Your task to perform on an android device: Search for the best rated coffee table on Target. Image 0: 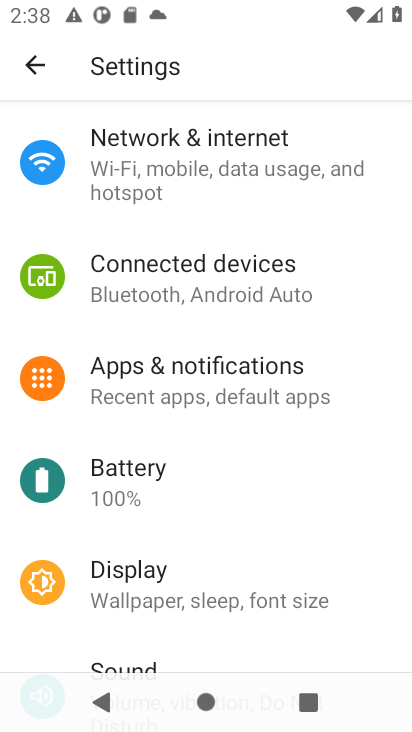
Step 0: press home button
Your task to perform on an android device: Search for the best rated coffee table on Target. Image 1: 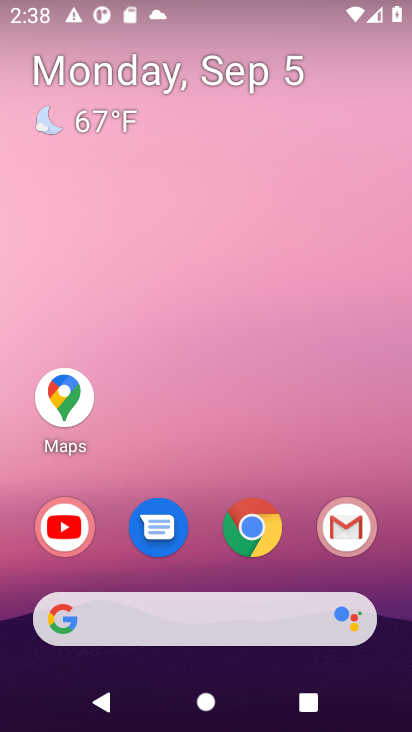
Step 1: click (239, 518)
Your task to perform on an android device: Search for the best rated coffee table on Target. Image 2: 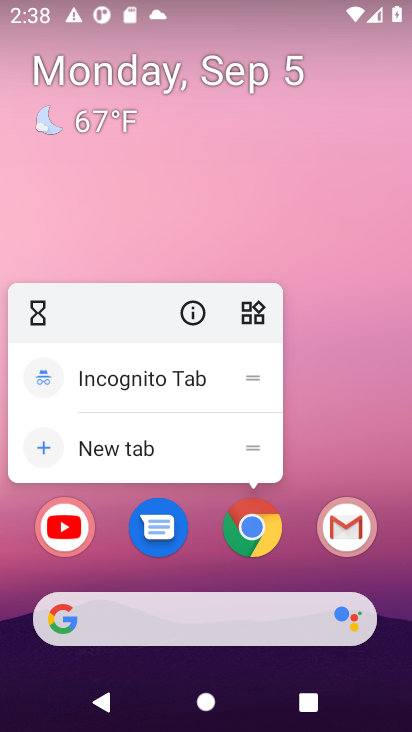
Step 2: click (239, 518)
Your task to perform on an android device: Search for the best rated coffee table on Target. Image 3: 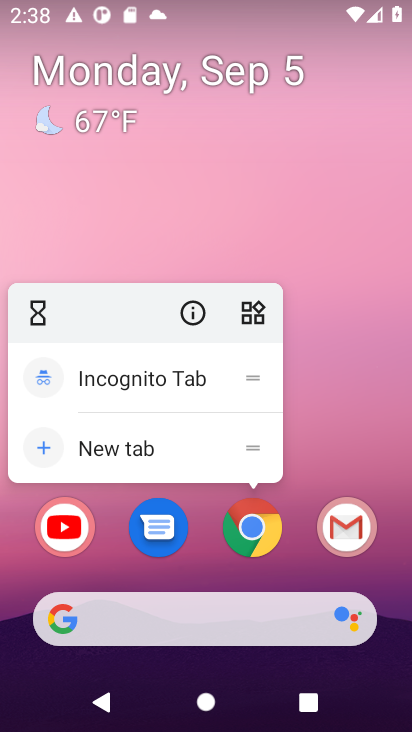
Step 3: click (250, 524)
Your task to perform on an android device: Search for the best rated coffee table on Target. Image 4: 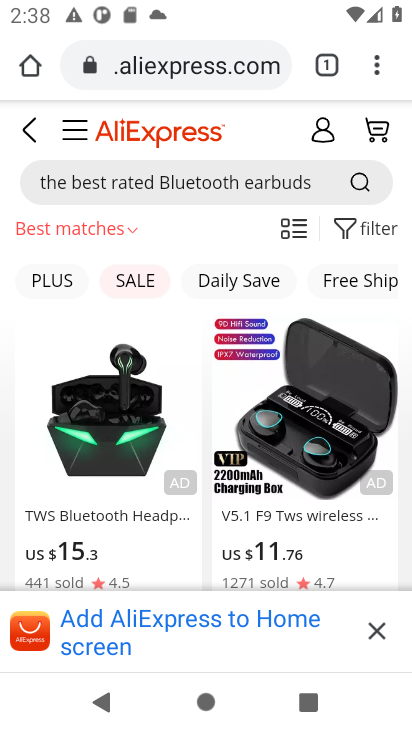
Step 4: click (208, 60)
Your task to perform on an android device: Search for the best rated coffee table on Target. Image 5: 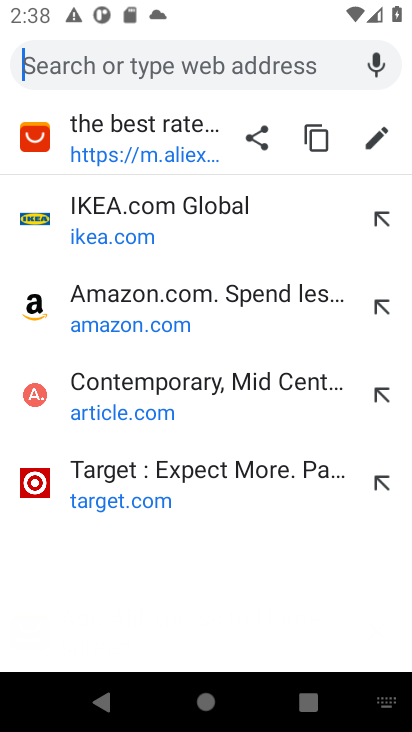
Step 5: type "target"
Your task to perform on an android device: Search for the best rated coffee table on Target. Image 6: 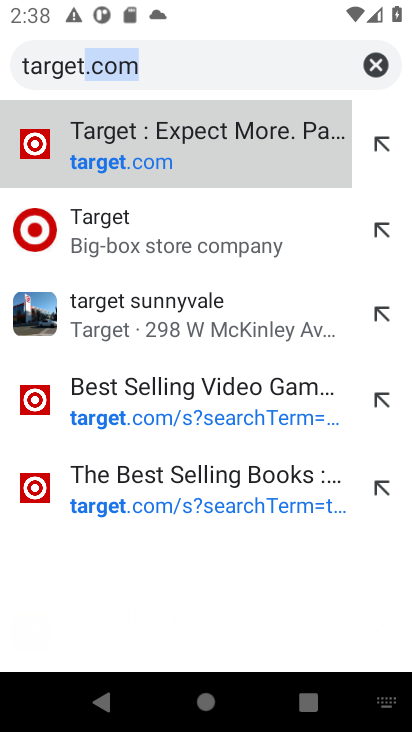
Step 6: click (274, 226)
Your task to perform on an android device: Search for the best rated coffee table on Target. Image 7: 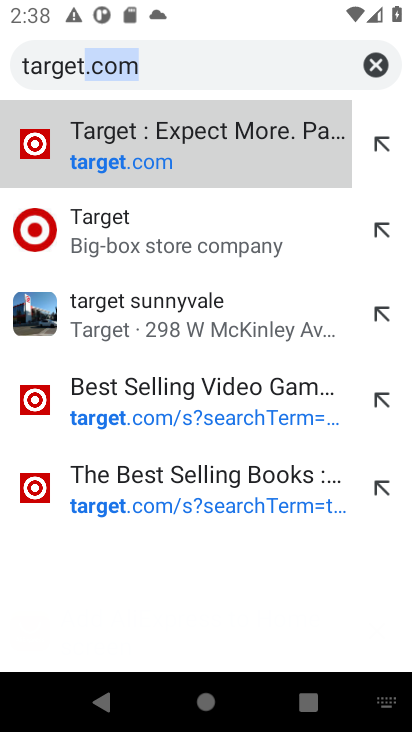
Step 7: click (213, 140)
Your task to perform on an android device: Search for the best rated coffee table on Target. Image 8: 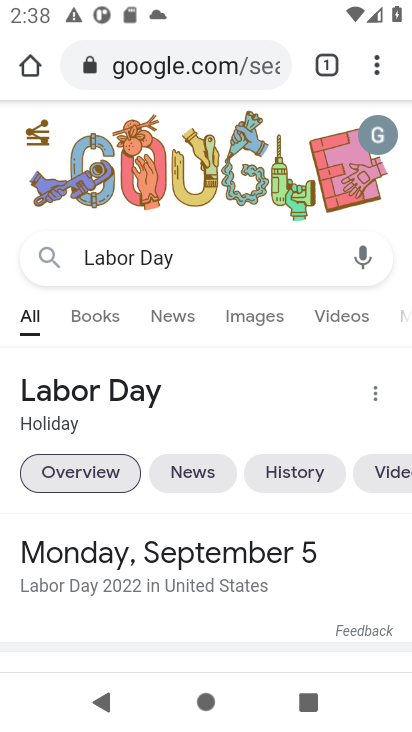
Step 8: click (153, 59)
Your task to perform on an android device: Search for the best rated coffee table on Target. Image 9: 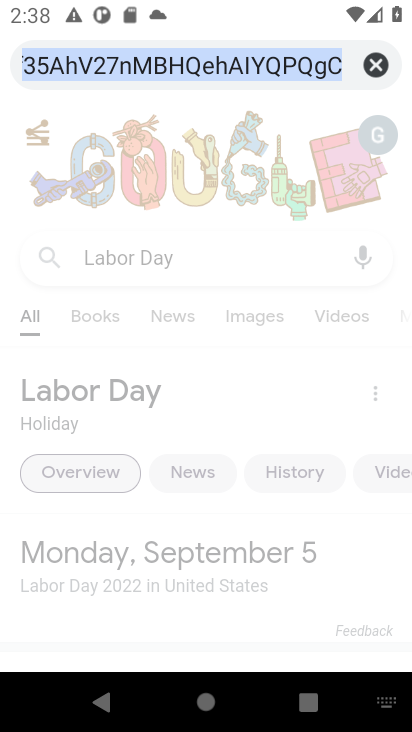
Step 9: type "target"
Your task to perform on an android device: Search for the best rated coffee table on Target. Image 10: 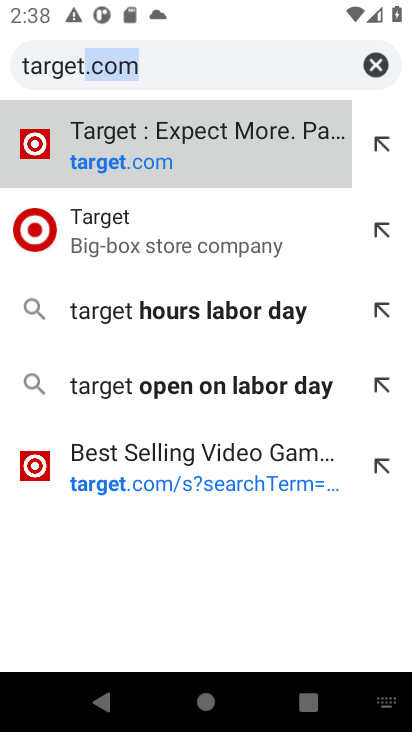
Step 10: click (182, 146)
Your task to perform on an android device: Search for the best rated coffee table on Target. Image 11: 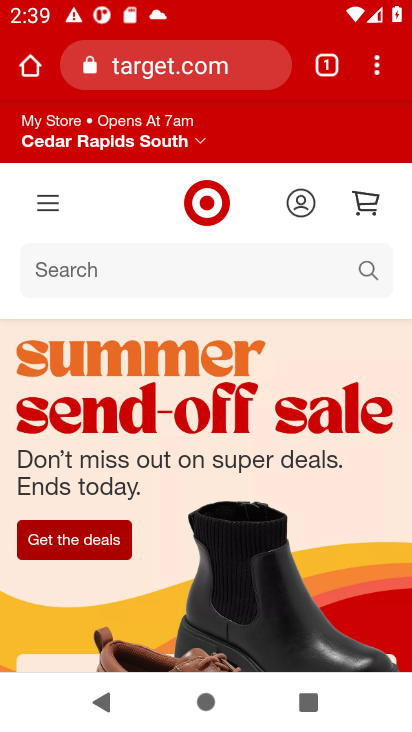
Step 11: click (190, 255)
Your task to perform on an android device: Search for the best rated coffee table on Target. Image 12: 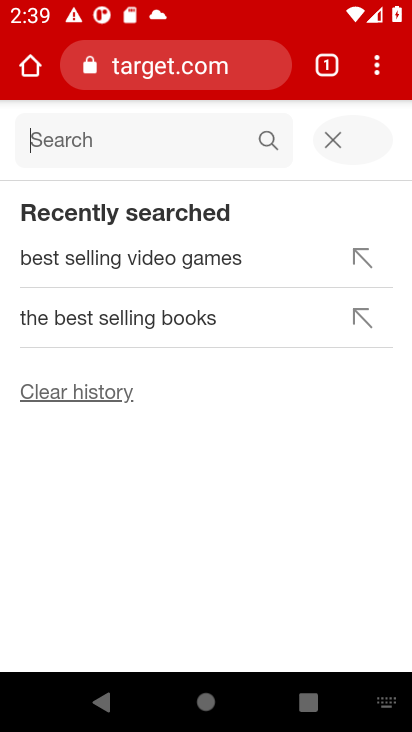
Step 12: type "he best rated coffee table"
Your task to perform on an android device: Search for the best rated coffee table on Target. Image 13: 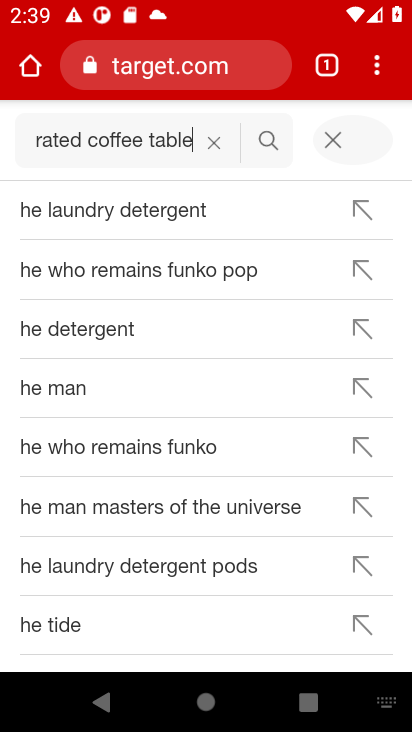
Step 13: click (262, 142)
Your task to perform on an android device: Search for the best rated coffee table on Target. Image 14: 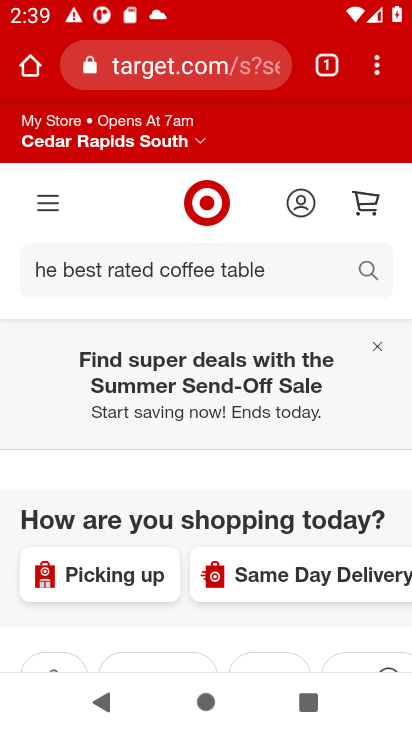
Step 14: task complete